Your task to perform on an android device: What's the weather? Image 0: 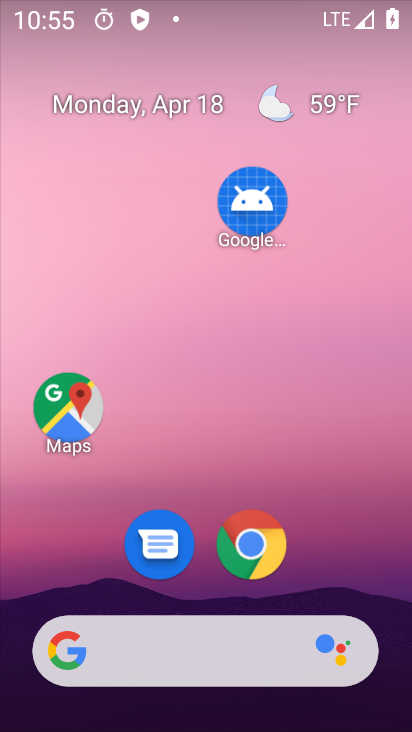
Step 0: drag from (253, 625) to (311, 283)
Your task to perform on an android device: What's the weather? Image 1: 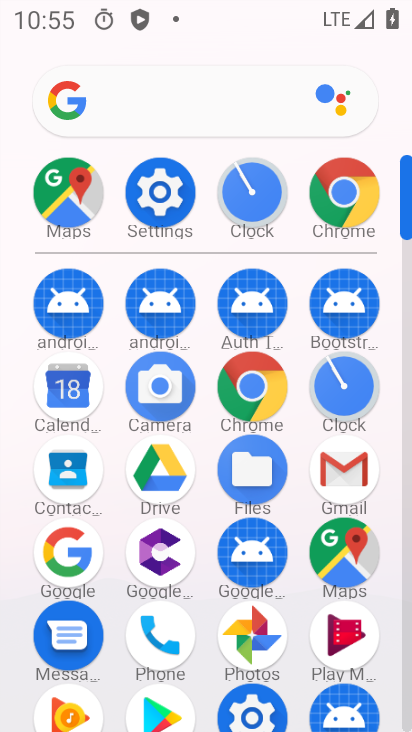
Step 1: click (244, 381)
Your task to perform on an android device: What's the weather? Image 2: 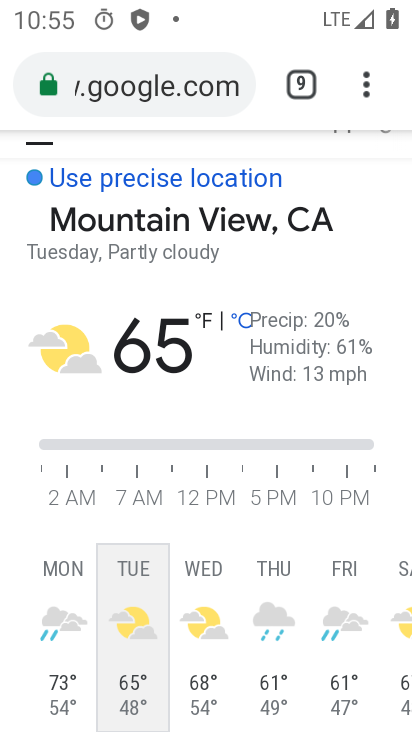
Step 2: click (369, 74)
Your task to perform on an android device: What's the weather? Image 3: 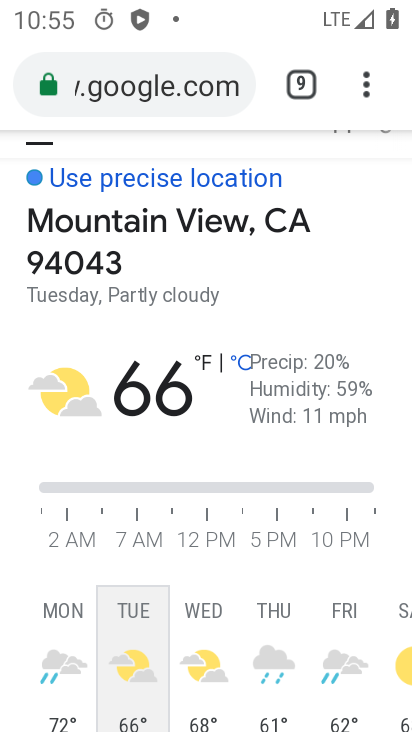
Step 3: click (366, 78)
Your task to perform on an android device: What's the weather? Image 4: 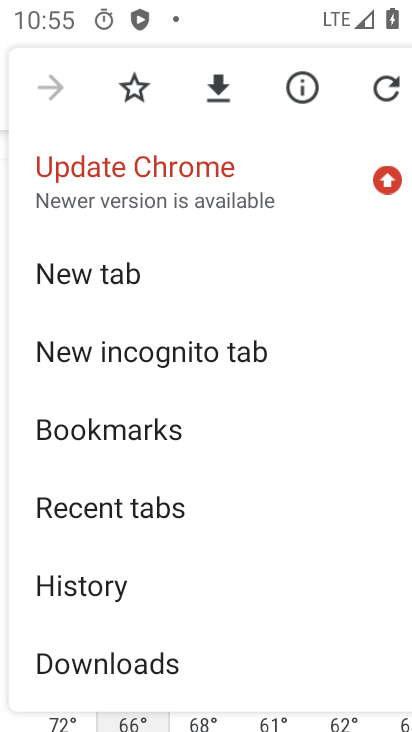
Step 4: click (152, 257)
Your task to perform on an android device: What's the weather? Image 5: 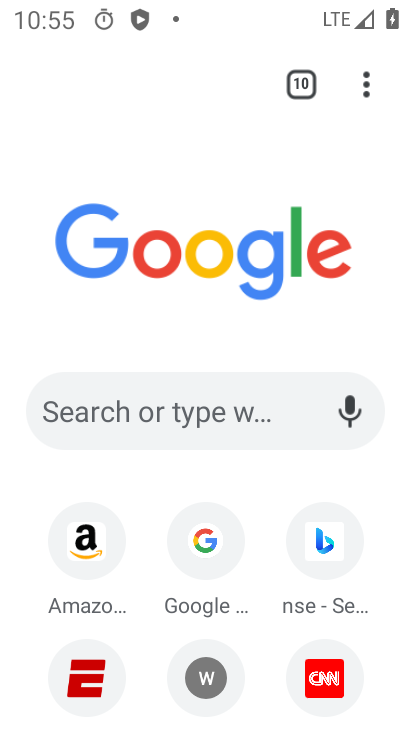
Step 5: click (182, 408)
Your task to perform on an android device: What's the weather? Image 6: 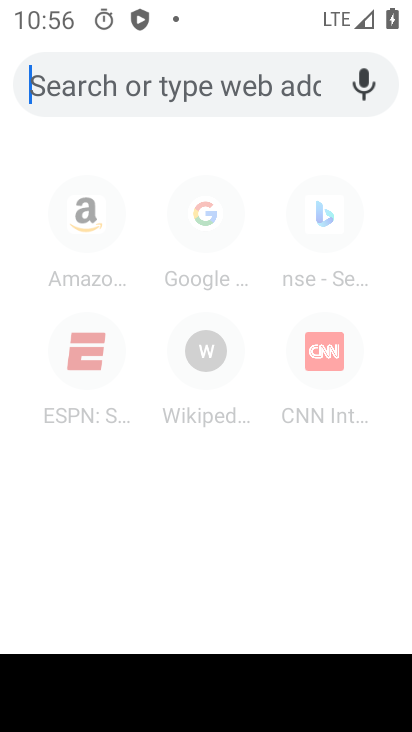
Step 6: type "What's the weather?"
Your task to perform on an android device: What's the weather? Image 7: 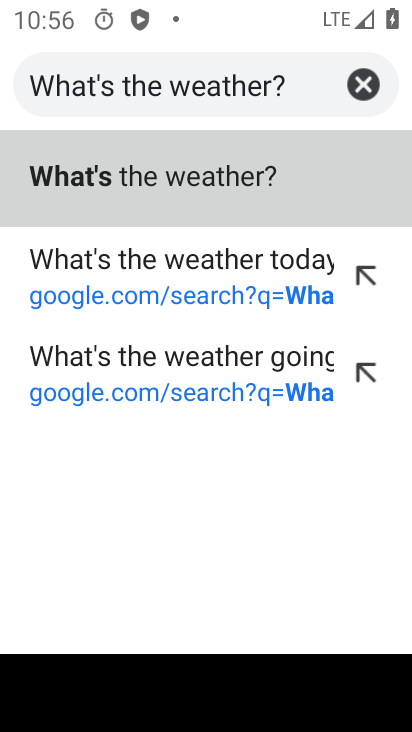
Step 7: click (210, 181)
Your task to perform on an android device: What's the weather? Image 8: 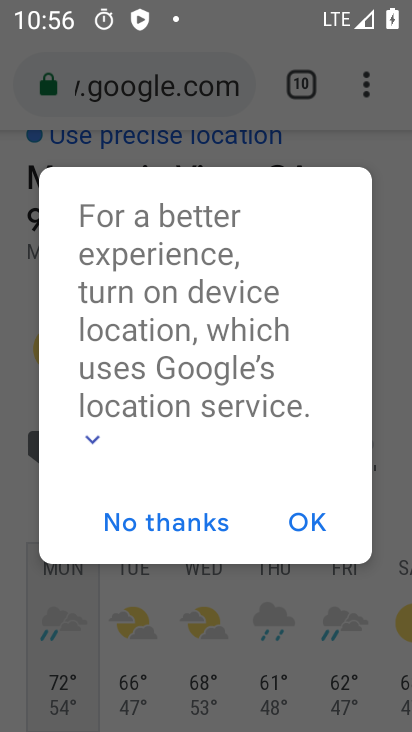
Step 8: click (190, 518)
Your task to perform on an android device: What's the weather? Image 9: 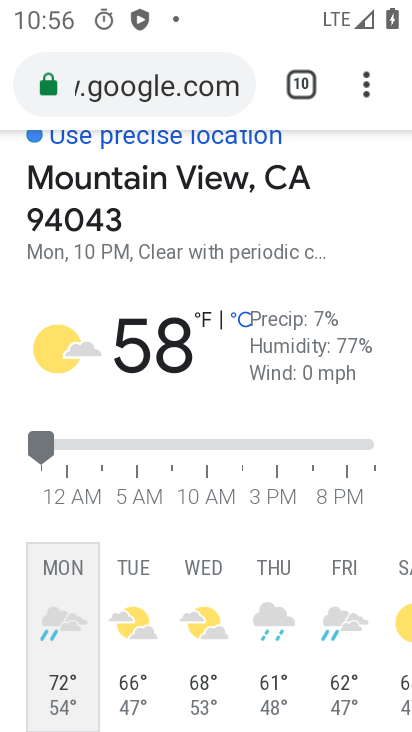
Step 9: task complete